Your task to perform on an android device: turn on airplane mode Image 0: 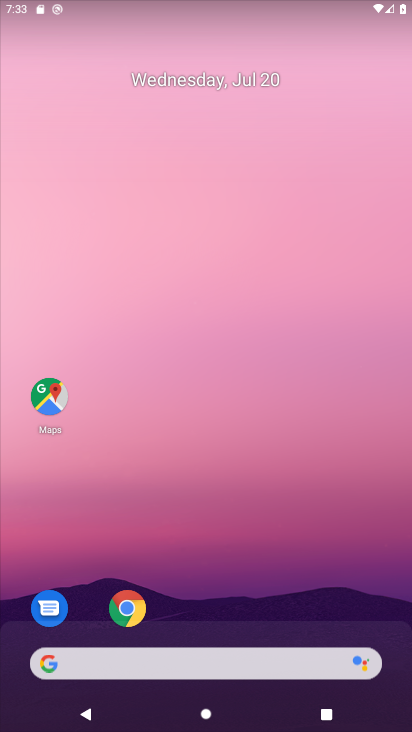
Step 0: drag from (277, 676) to (314, 71)
Your task to perform on an android device: turn on airplane mode Image 1: 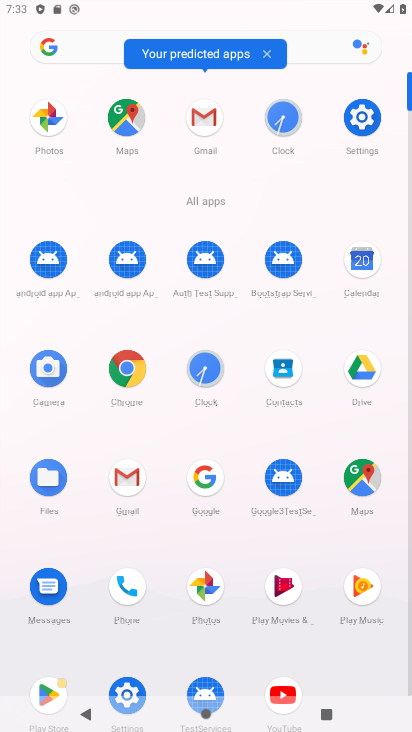
Step 1: click (356, 122)
Your task to perform on an android device: turn on airplane mode Image 2: 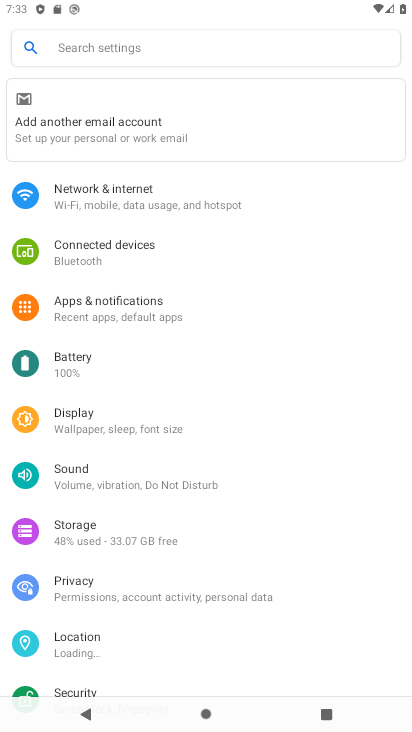
Step 2: click (117, 205)
Your task to perform on an android device: turn on airplane mode Image 3: 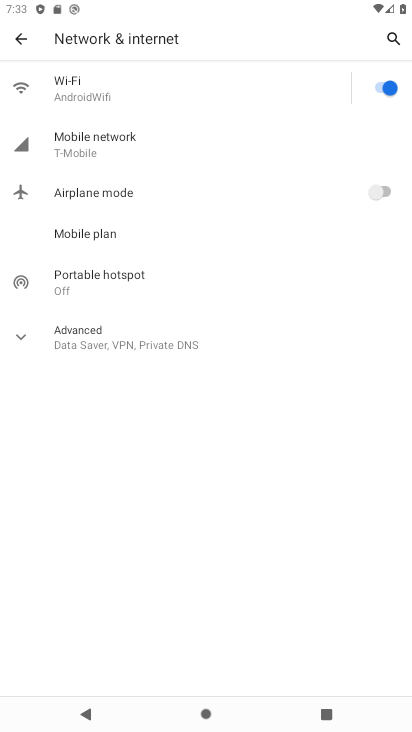
Step 3: click (378, 194)
Your task to perform on an android device: turn on airplane mode Image 4: 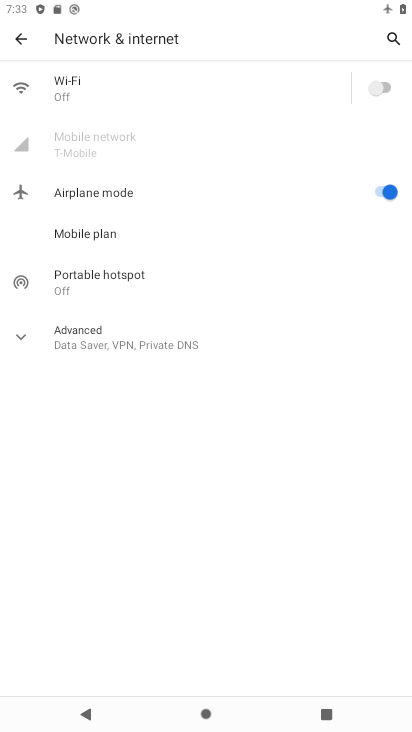
Step 4: task complete